Your task to perform on an android device: change notification settings in the gmail app Image 0: 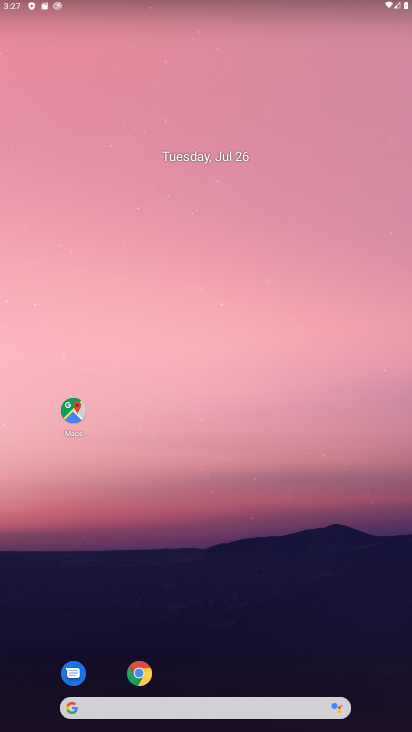
Step 0: drag from (289, 671) to (266, 51)
Your task to perform on an android device: change notification settings in the gmail app Image 1: 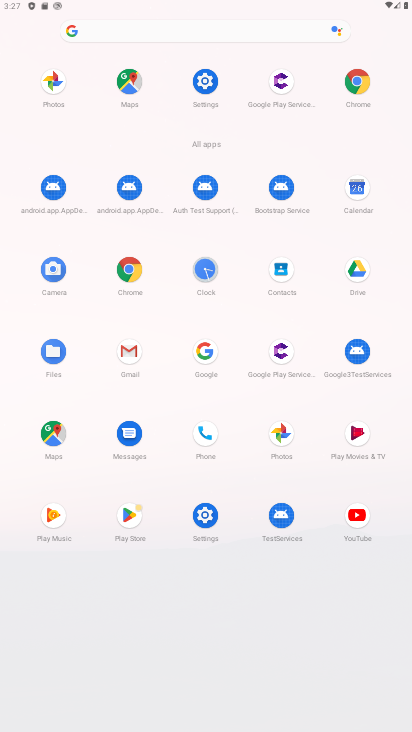
Step 1: click (132, 349)
Your task to perform on an android device: change notification settings in the gmail app Image 2: 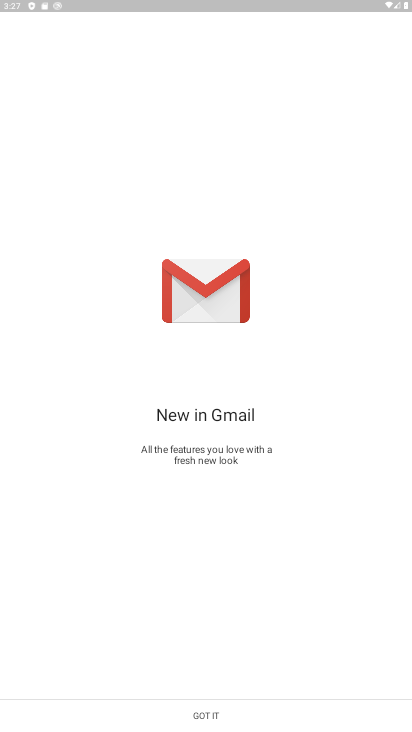
Step 2: click (221, 717)
Your task to perform on an android device: change notification settings in the gmail app Image 3: 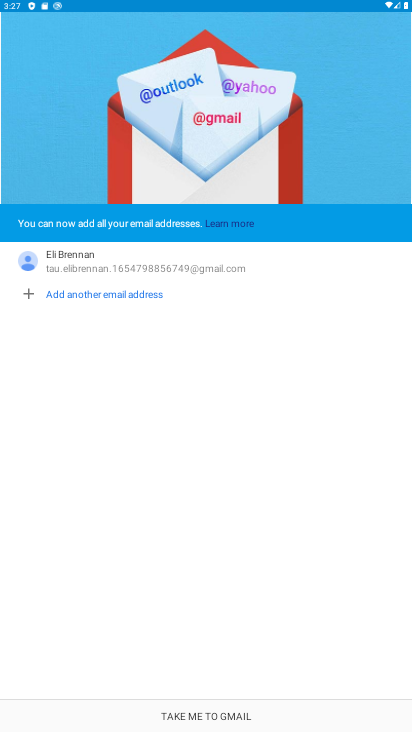
Step 3: click (221, 717)
Your task to perform on an android device: change notification settings in the gmail app Image 4: 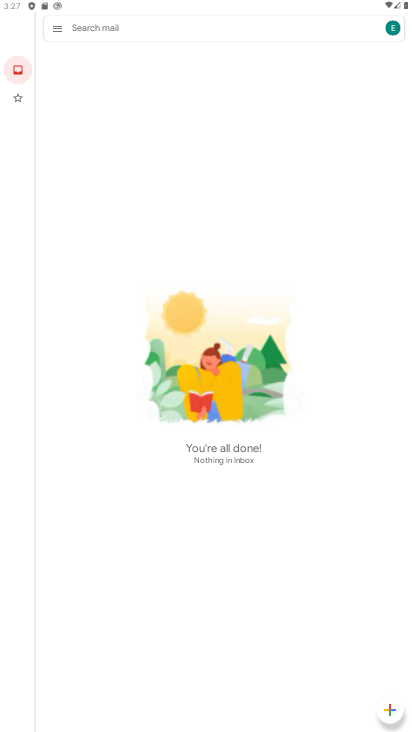
Step 4: click (57, 31)
Your task to perform on an android device: change notification settings in the gmail app Image 5: 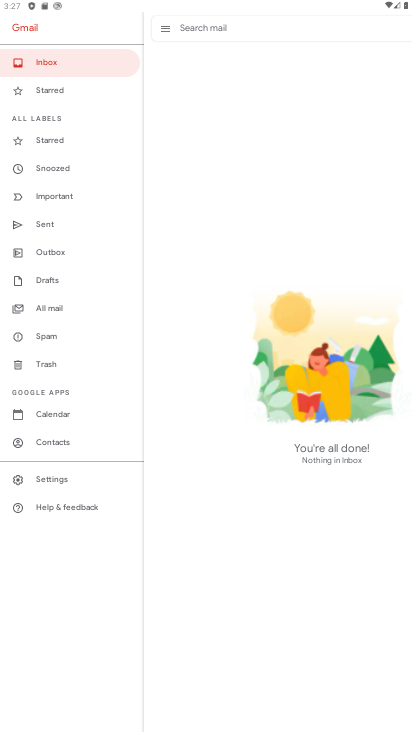
Step 5: click (65, 479)
Your task to perform on an android device: change notification settings in the gmail app Image 6: 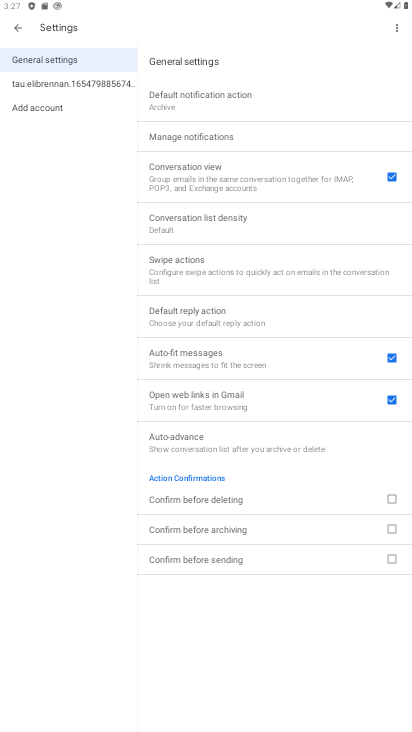
Step 6: click (179, 136)
Your task to perform on an android device: change notification settings in the gmail app Image 7: 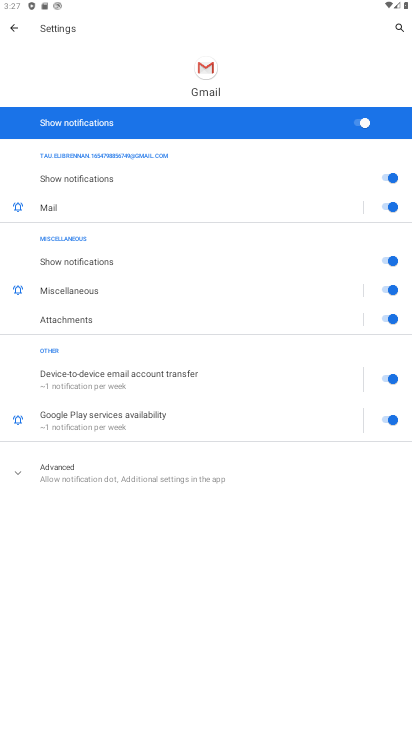
Step 7: click (365, 129)
Your task to perform on an android device: change notification settings in the gmail app Image 8: 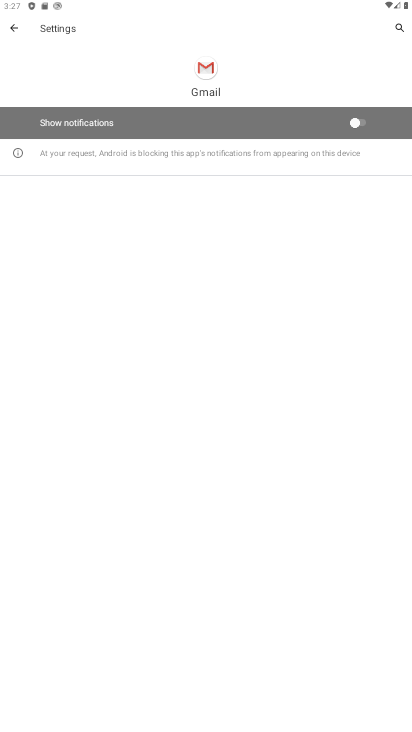
Step 8: task complete